Your task to perform on an android device: add a label to a message in the gmail app Image 0: 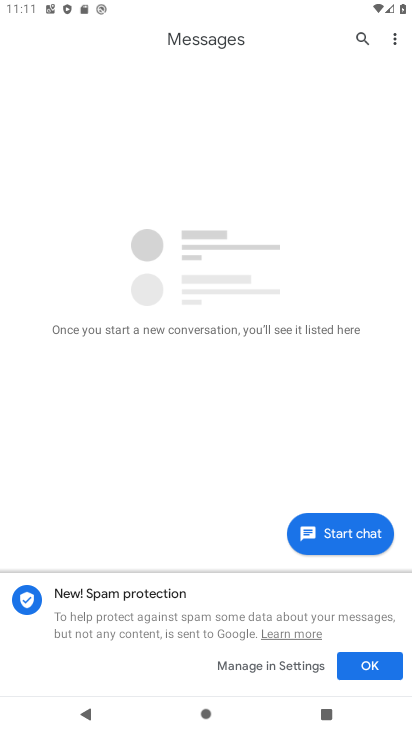
Step 0: press back button
Your task to perform on an android device: add a label to a message in the gmail app Image 1: 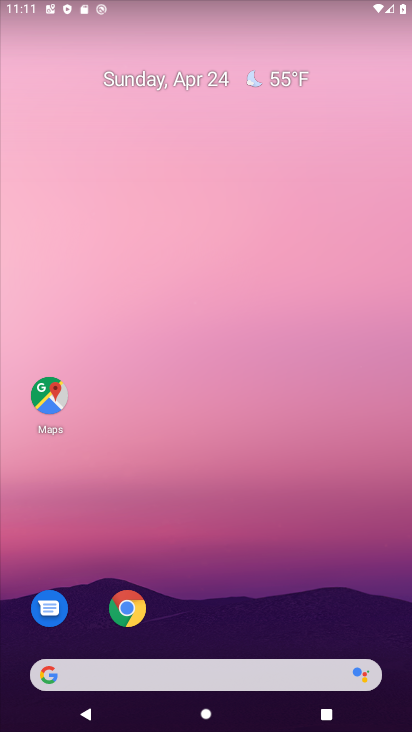
Step 1: drag from (235, 597) to (311, 81)
Your task to perform on an android device: add a label to a message in the gmail app Image 2: 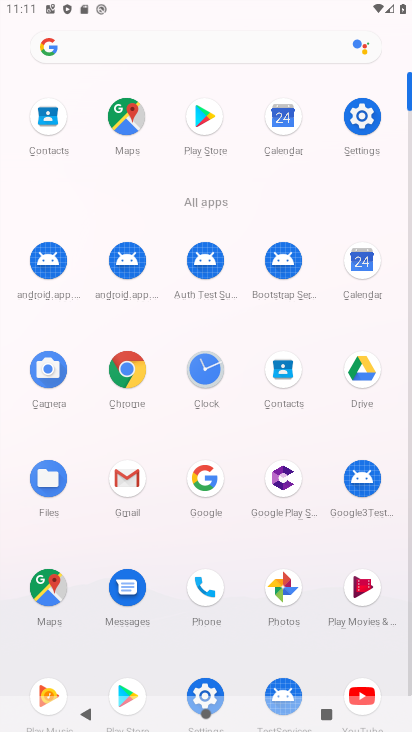
Step 2: click (128, 483)
Your task to perform on an android device: add a label to a message in the gmail app Image 3: 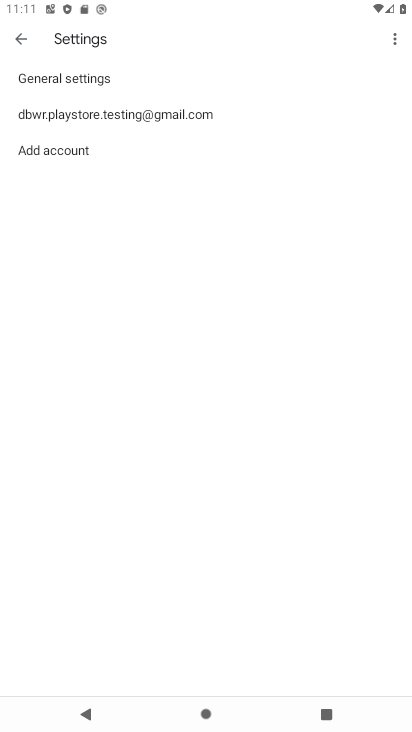
Step 3: click (22, 38)
Your task to perform on an android device: add a label to a message in the gmail app Image 4: 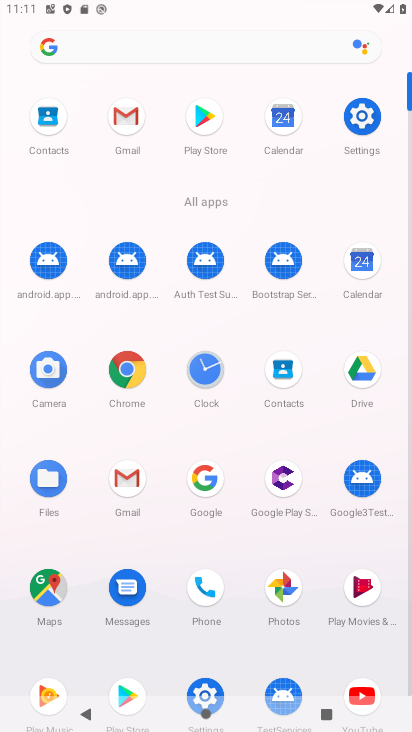
Step 4: click (120, 111)
Your task to perform on an android device: add a label to a message in the gmail app Image 5: 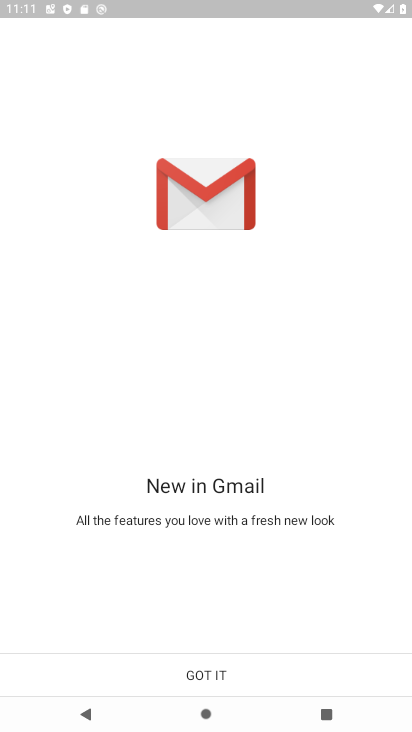
Step 5: click (217, 678)
Your task to perform on an android device: add a label to a message in the gmail app Image 6: 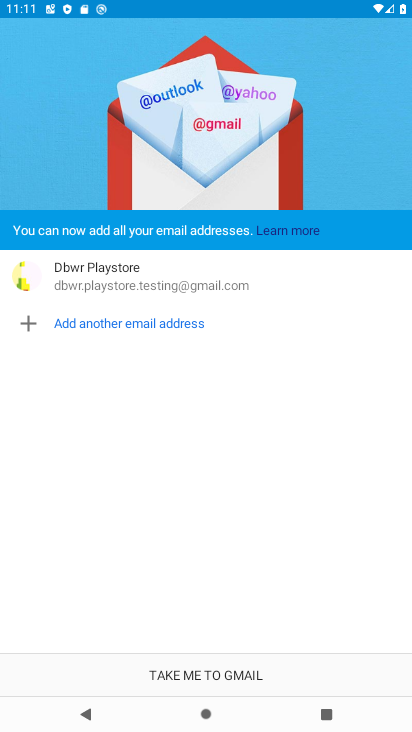
Step 6: click (189, 672)
Your task to perform on an android device: add a label to a message in the gmail app Image 7: 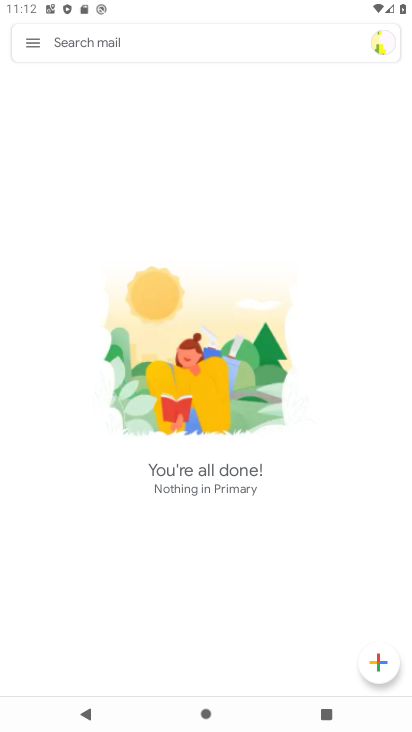
Step 7: click (34, 46)
Your task to perform on an android device: add a label to a message in the gmail app Image 8: 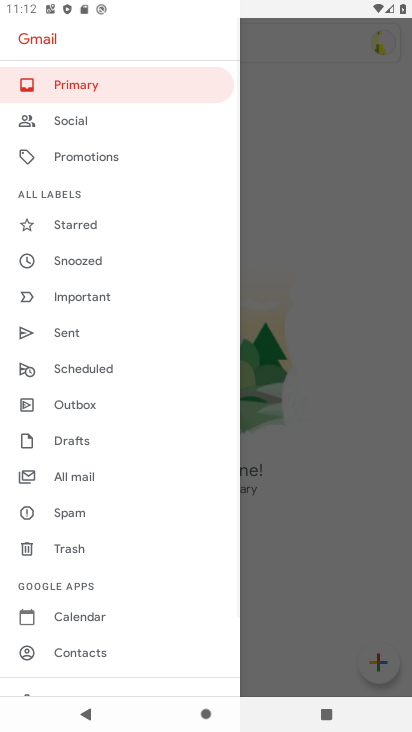
Step 8: click (76, 469)
Your task to perform on an android device: add a label to a message in the gmail app Image 9: 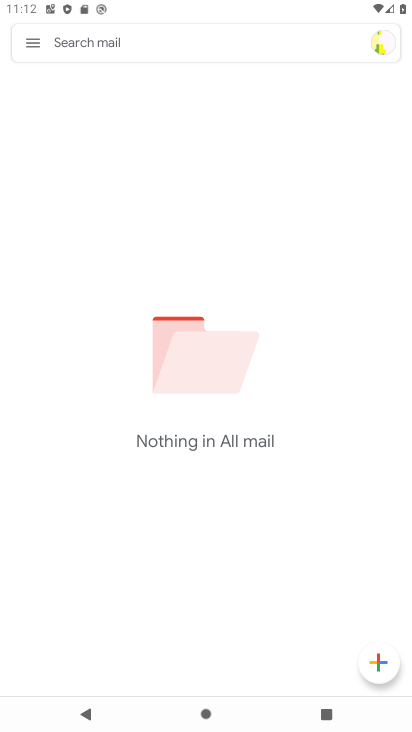
Step 9: task complete